Your task to perform on an android device: toggle show notifications on the lock screen Image 0: 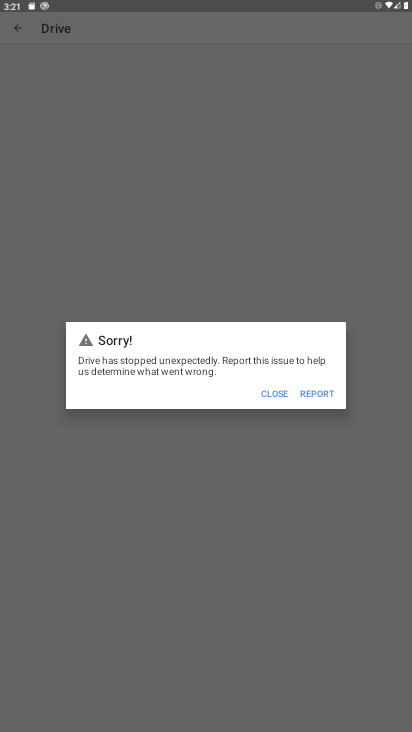
Step 0: press home button
Your task to perform on an android device: toggle show notifications on the lock screen Image 1: 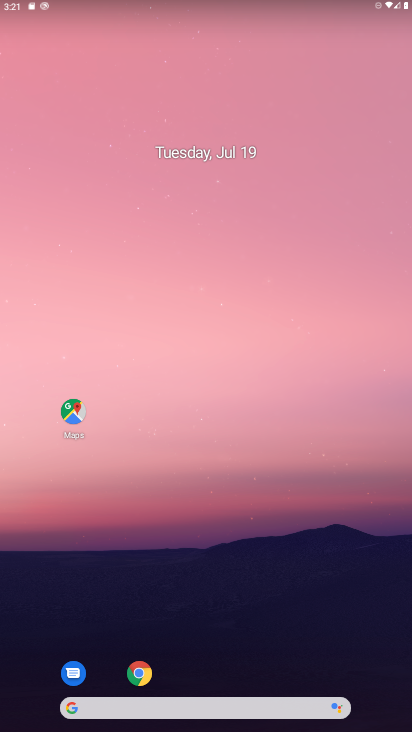
Step 1: drag from (204, 664) to (225, 68)
Your task to perform on an android device: toggle show notifications on the lock screen Image 2: 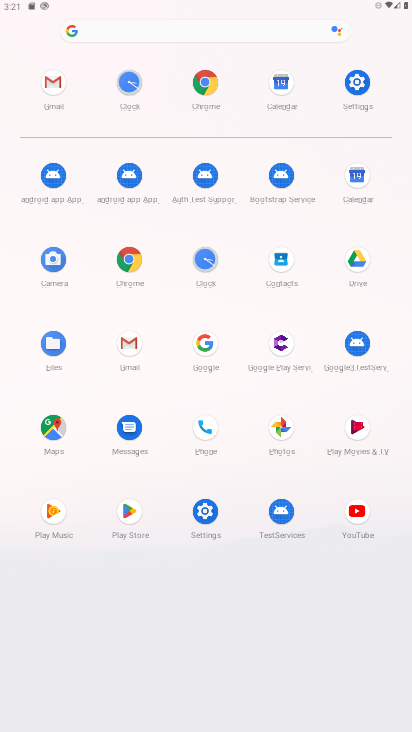
Step 2: click (207, 508)
Your task to perform on an android device: toggle show notifications on the lock screen Image 3: 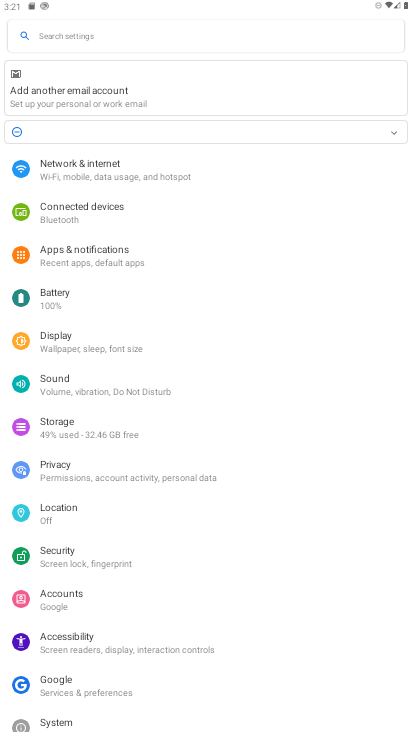
Step 3: click (118, 255)
Your task to perform on an android device: toggle show notifications on the lock screen Image 4: 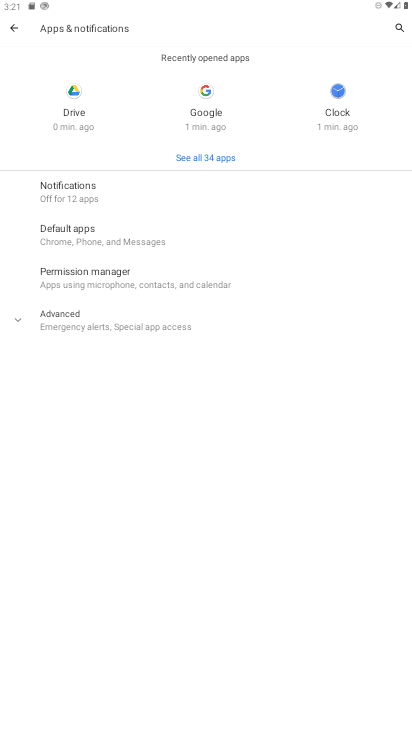
Step 4: click (94, 195)
Your task to perform on an android device: toggle show notifications on the lock screen Image 5: 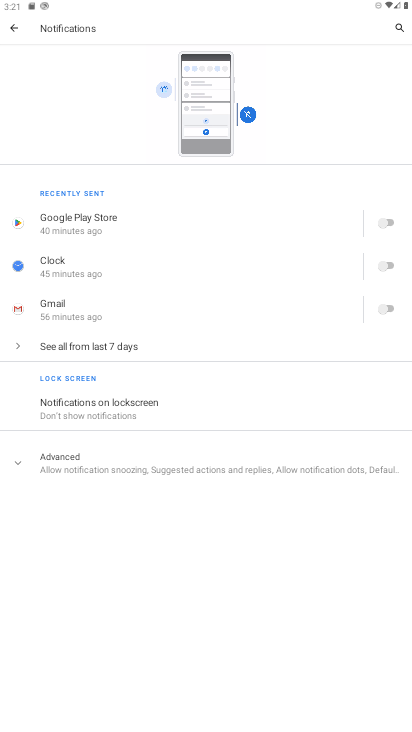
Step 5: click (96, 472)
Your task to perform on an android device: toggle show notifications on the lock screen Image 6: 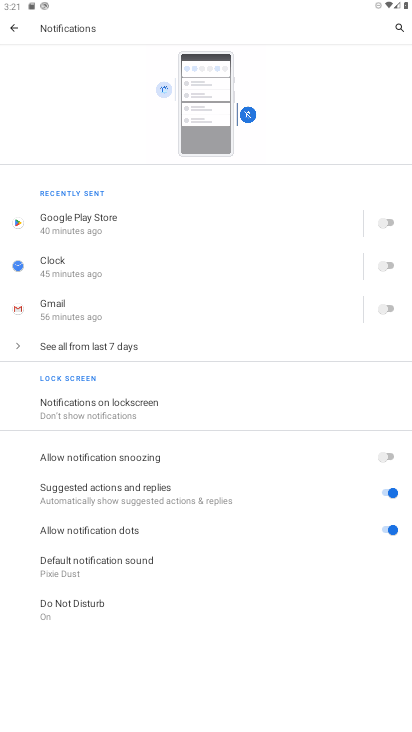
Step 6: click (108, 401)
Your task to perform on an android device: toggle show notifications on the lock screen Image 7: 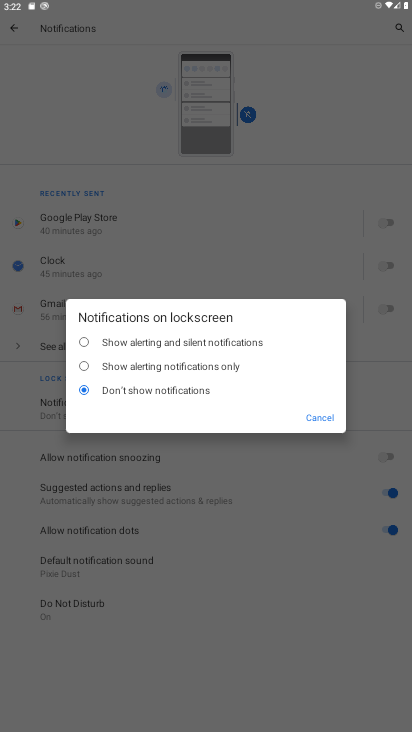
Step 7: click (80, 336)
Your task to perform on an android device: toggle show notifications on the lock screen Image 8: 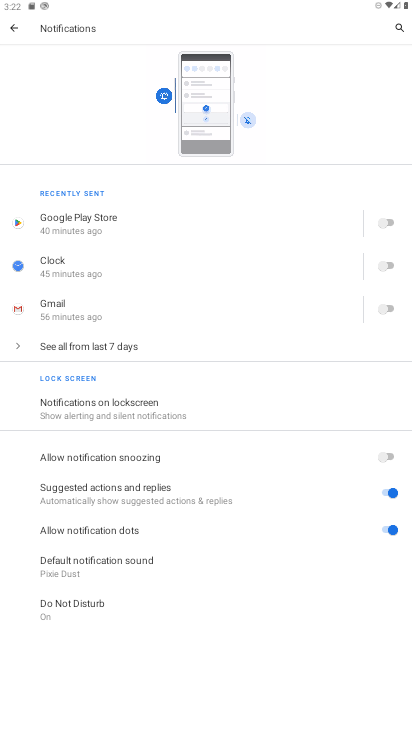
Step 8: task complete